Your task to perform on an android device: Open Google Chrome and click the shortcut for Amazon.com Image 0: 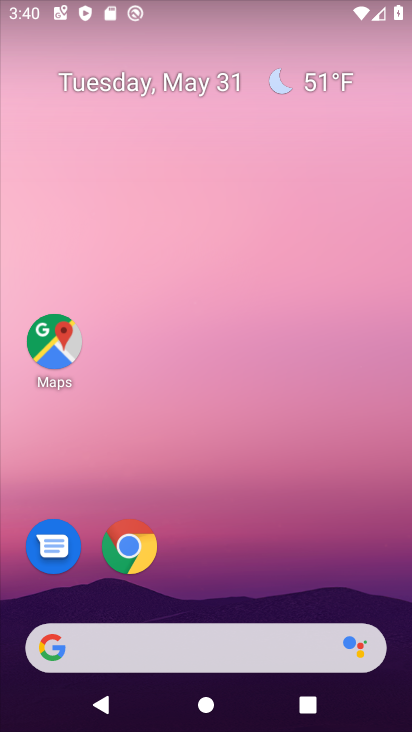
Step 0: drag from (224, 593) to (229, 271)
Your task to perform on an android device: Open Google Chrome and click the shortcut for Amazon.com Image 1: 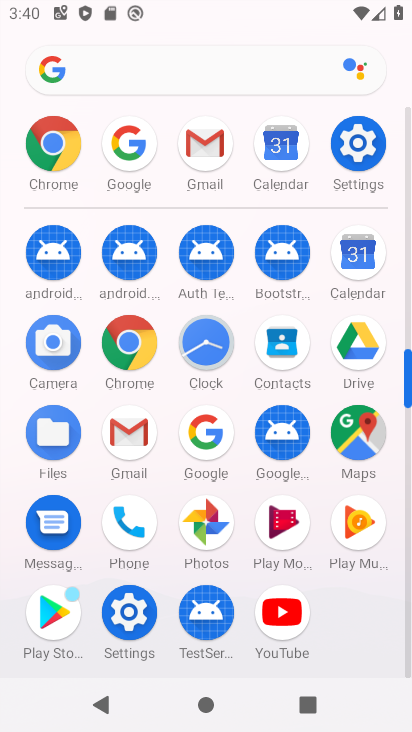
Step 1: click (136, 361)
Your task to perform on an android device: Open Google Chrome and click the shortcut for Amazon.com Image 2: 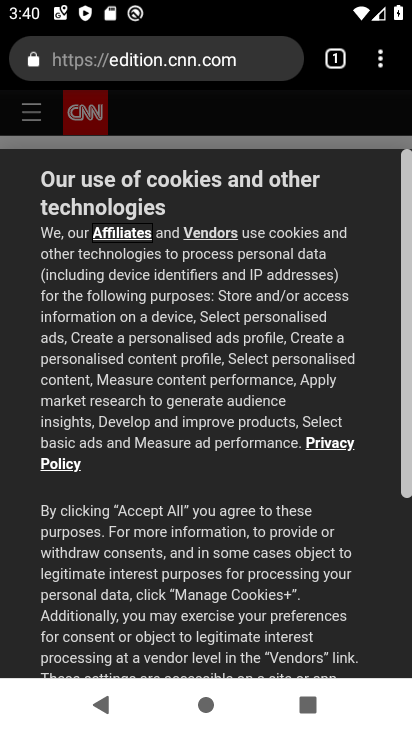
Step 2: press back button
Your task to perform on an android device: Open Google Chrome and click the shortcut for Amazon.com Image 3: 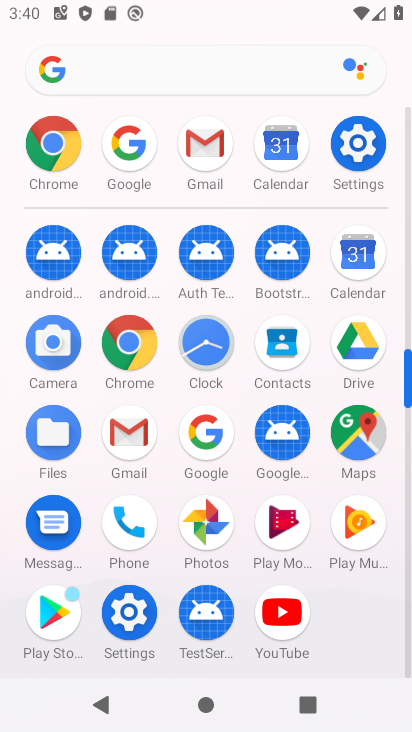
Step 3: click (22, 164)
Your task to perform on an android device: Open Google Chrome and click the shortcut for Amazon.com Image 4: 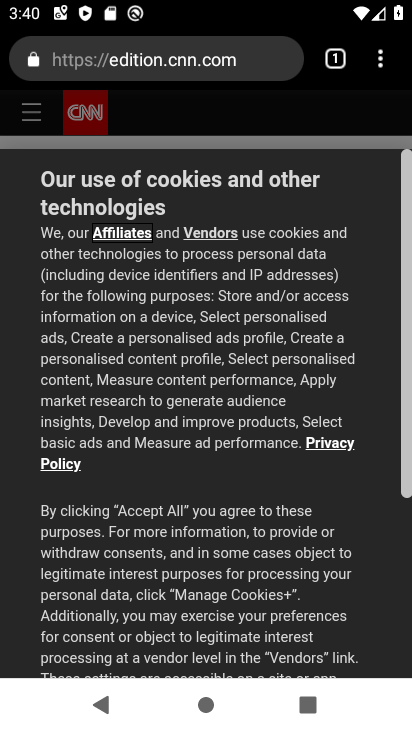
Step 4: click (222, 76)
Your task to perform on an android device: Open Google Chrome and click the shortcut for Amazon.com Image 5: 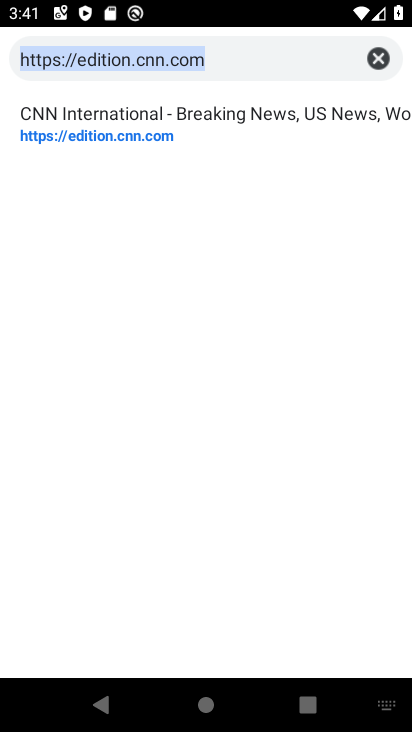
Step 5: type "www.amazon.com"
Your task to perform on an android device: Open Google Chrome and click the shortcut for Amazon.com Image 6: 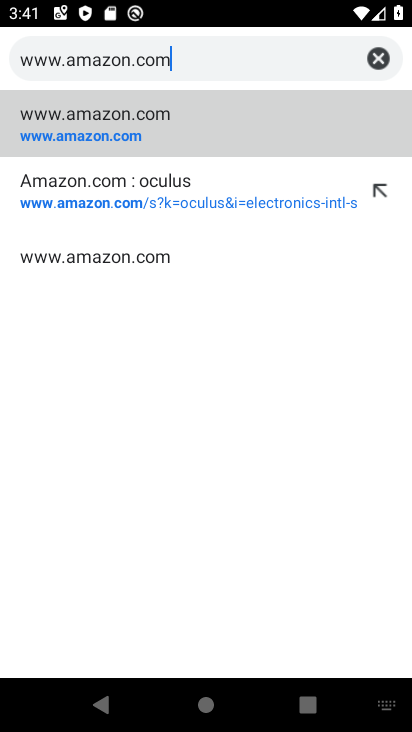
Step 6: click (95, 137)
Your task to perform on an android device: Open Google Chrome and click the shortcut for Amazon.com Image 7: 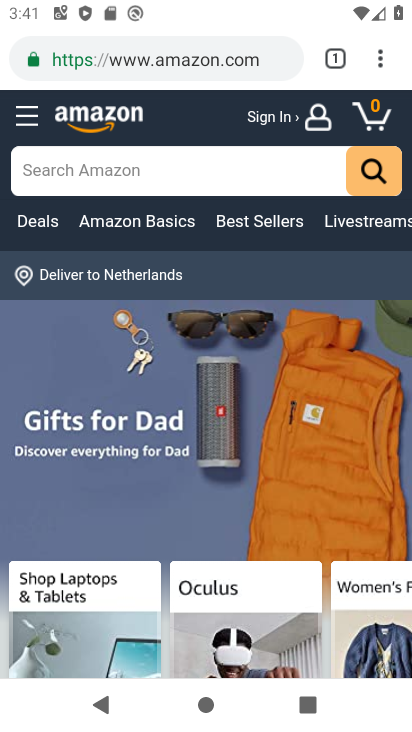
Step 7: task complete